Your task to perform on an android device: Show me popular videos on Youtube Image 0: 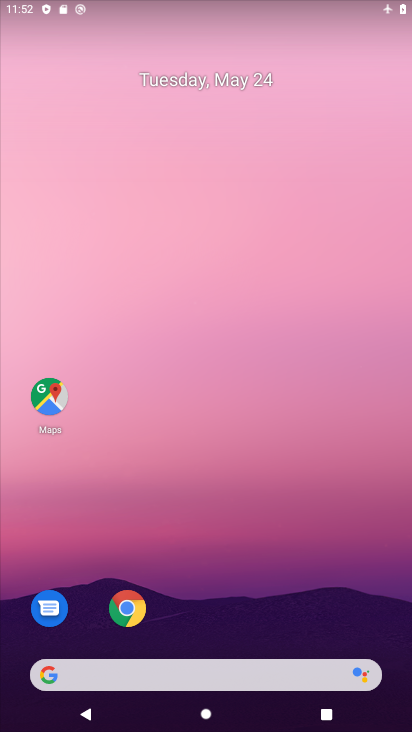
Step 0: drag from (259, 589) to (274, 267)
Your task to perform on an android device: Show me popular videos on Youtube Image 1: 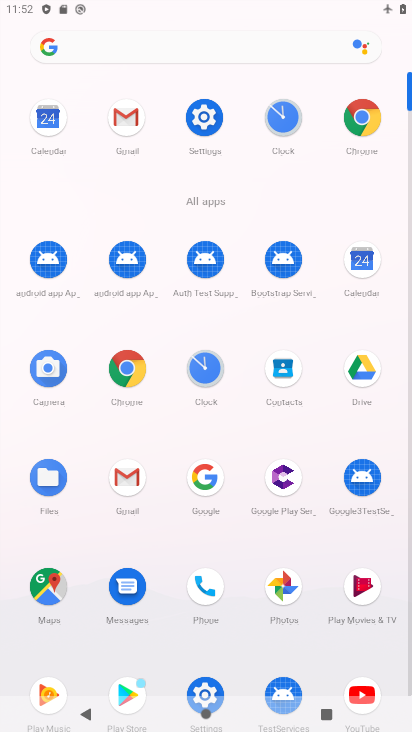
Step 1: click (355, 686)
Your task to perform on an android device: Show me popular videos on Youtube Image 2: 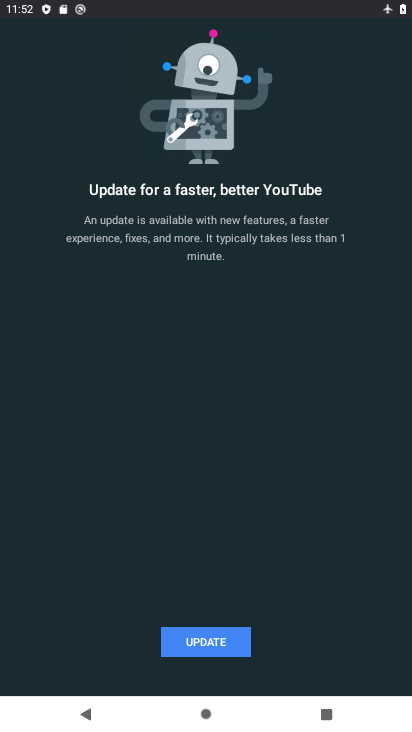
Step 2: click (226, 635)
Your task to perform on an android device: Show me popular videos on Youtube Image 3: 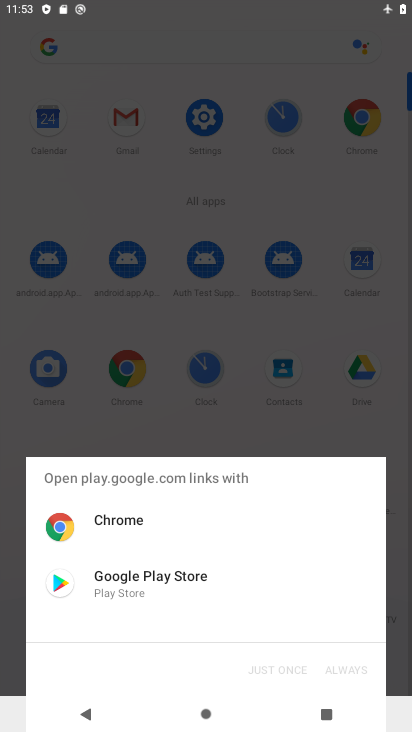
Step 3: click (149, 567)
Your task to perform on an android device: Show me popular videos on Youtube Image 4: 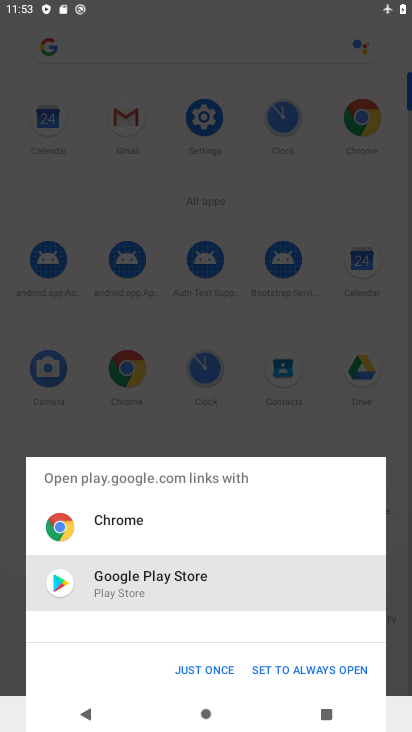
Step 4: click (210, 671)
Your task to perform on an android device: Show me popular videos on Youtube Image 5: 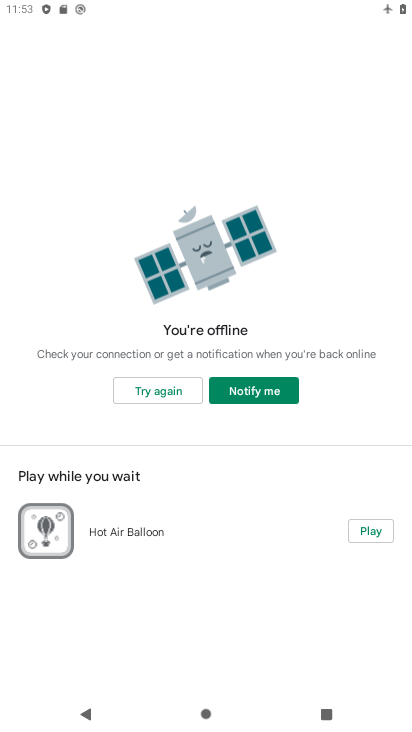
Step 5: task complete